Your task to perform on an android device: Open wifi settings Image 0: 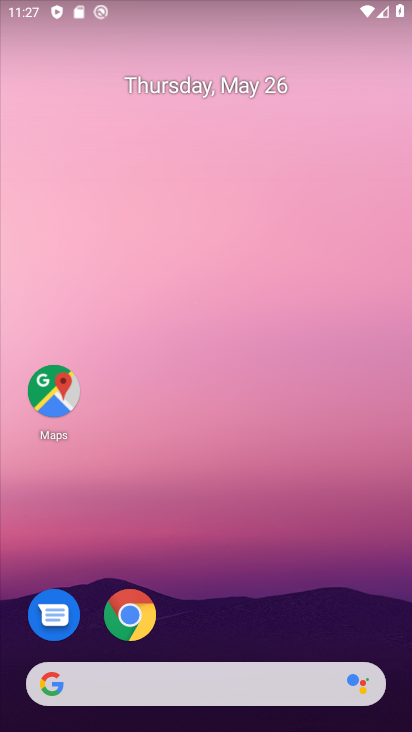
Step 0: drag from (378, 2) to (303, 691)
Your task to perform on an android device: Open wifi settings Image 1: 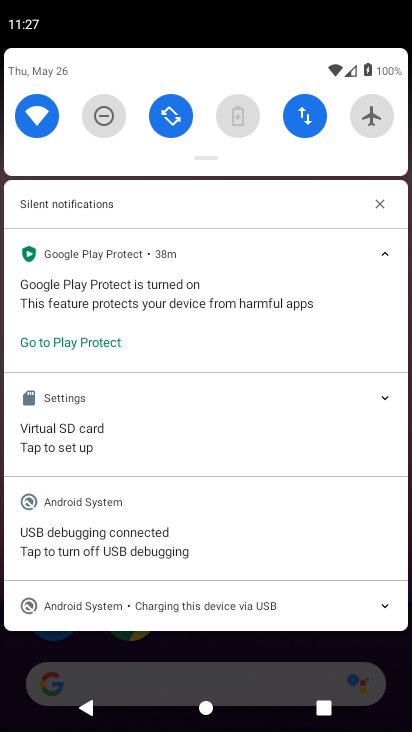
Step 1: click (26, 118)
Your task to perform on an android device: Open wifi settings Image 2: 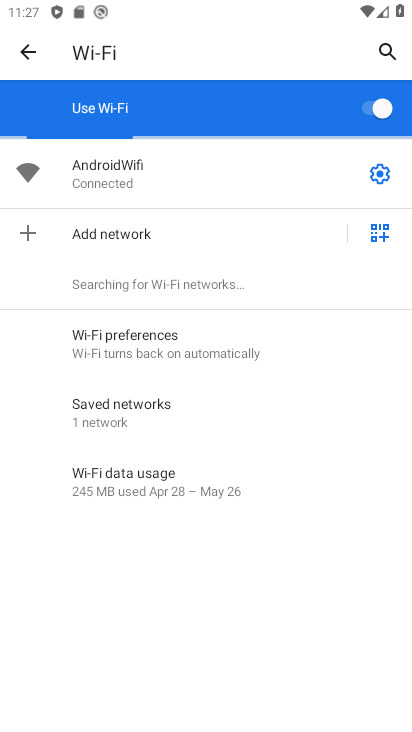
Step 2: task complete